Your task to perform on an android device: Open settings Image 0: 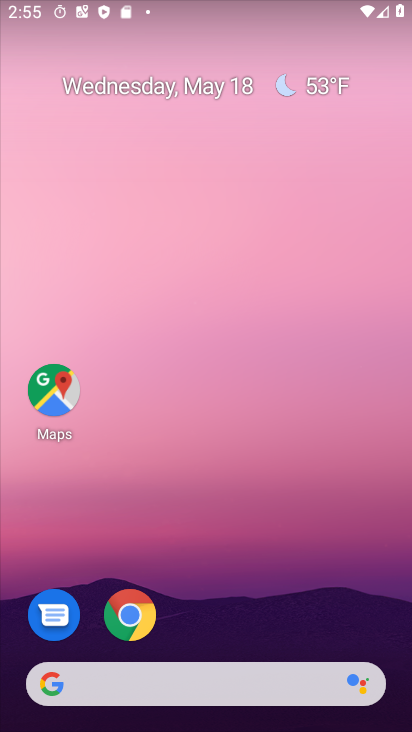
Step 0: drag from (229, 646) to (327, 193)
Your task to perform on an android device: Open settings Image 1: 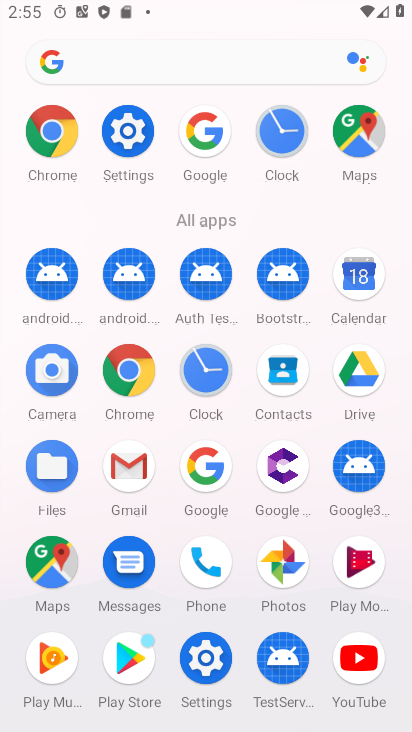
Step 1: click (203, 673)
Your task to perform on an android device: Open settings Image 2: 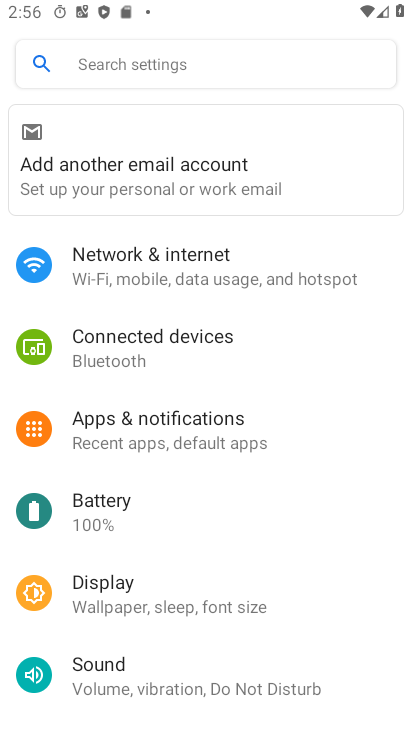
Step 2: task complete